Your task to perform on an android device: open a new tab in the chrome app Image 0: 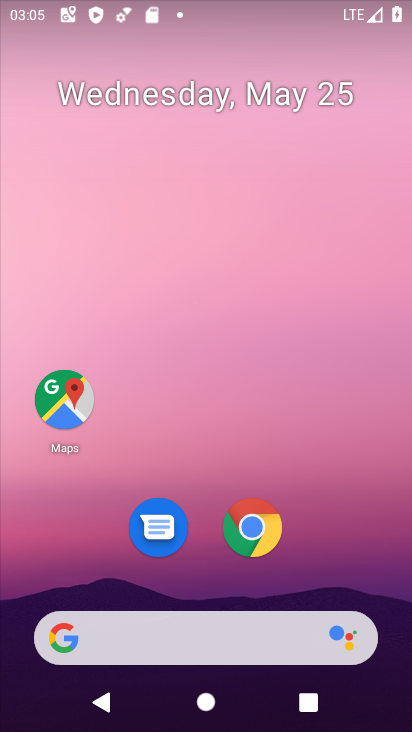
Step 0: drag from (223, 244) to (243, 145)
Your task to perform on an android device: open a new tab in the chrome app Image 1: 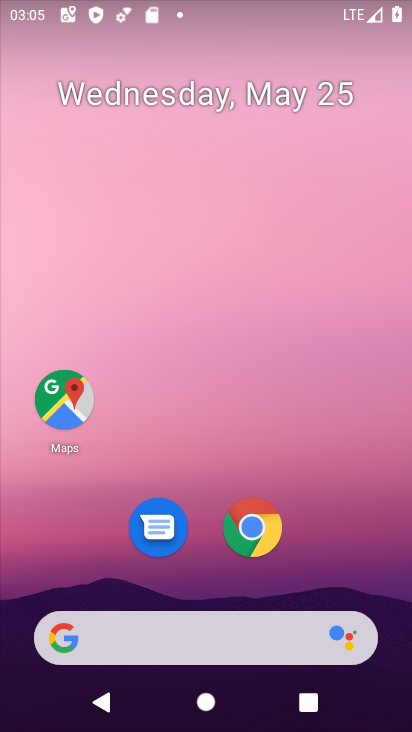
Step 1: click (256, 527)
Your task to perform on an android device: open a new tab in the chrome app Image 2: 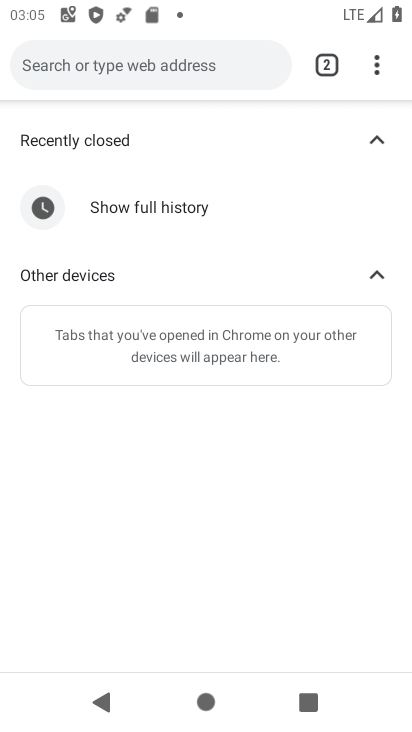
Step 2: click (316, 57)
Your task to perform on an android device: open a new tab in the chrome app Image 3: 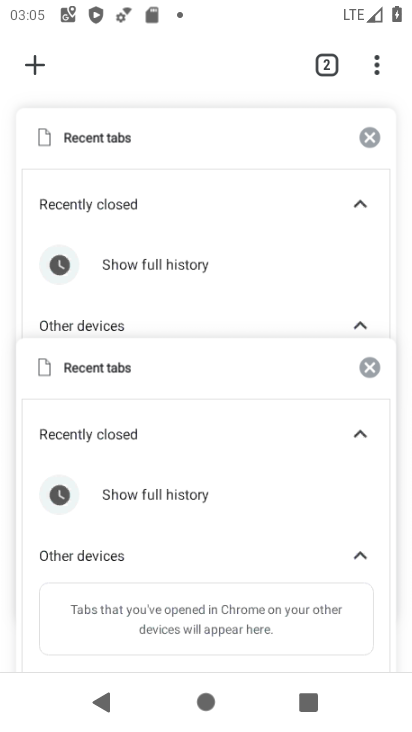
Step 3: click (36, 60)
Your task to perform on an android device: open a new tab in the chrome app Image 4: 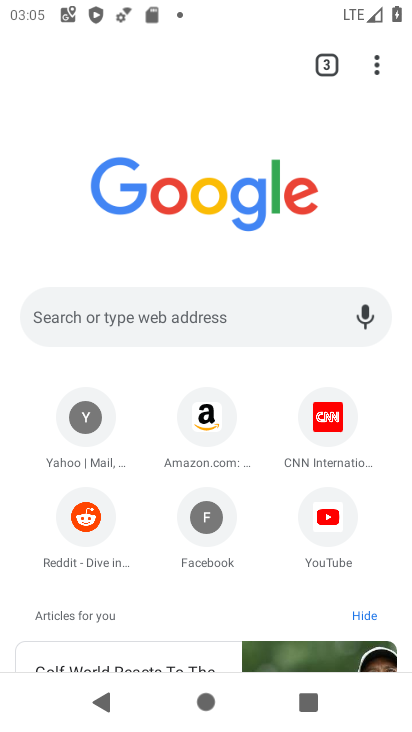
Step 4: task complete